Your task to perform on an android device: choose inbox layout in the gmail app Image 0: 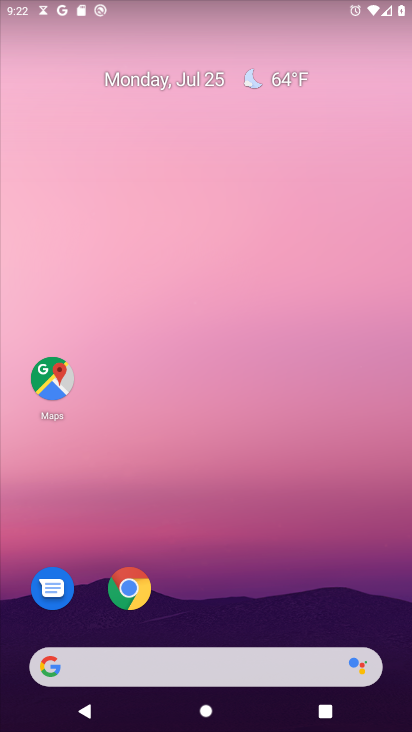
Step 0: drag from (181, 665) to (234, 189)
Your task to perform on an android device: choose inbox layout in the gmail app Image 1: 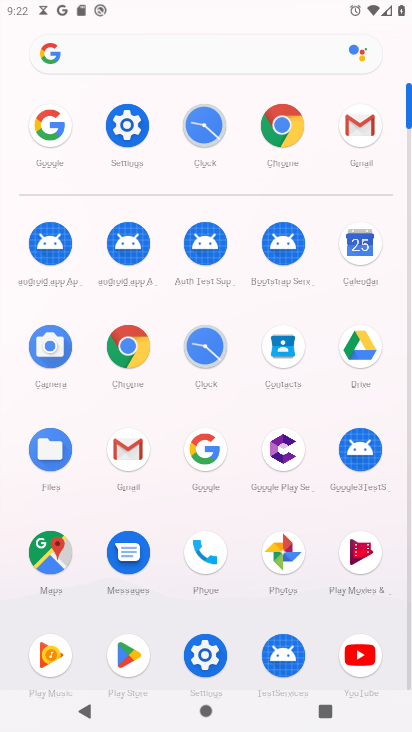
Step 1: click (125, 451)
Your task to perform on an android device: choose inbox layout in the gmail app Image 2: 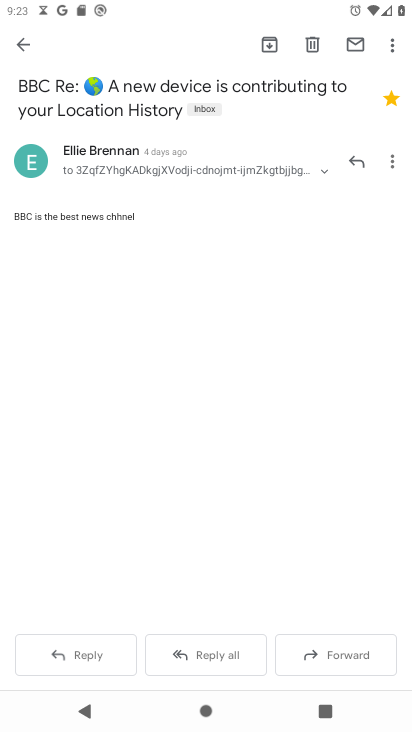
Step 2: click (28, 36)
Your task to perform on an android device: choose inbox layout in the gmail app Image 3: 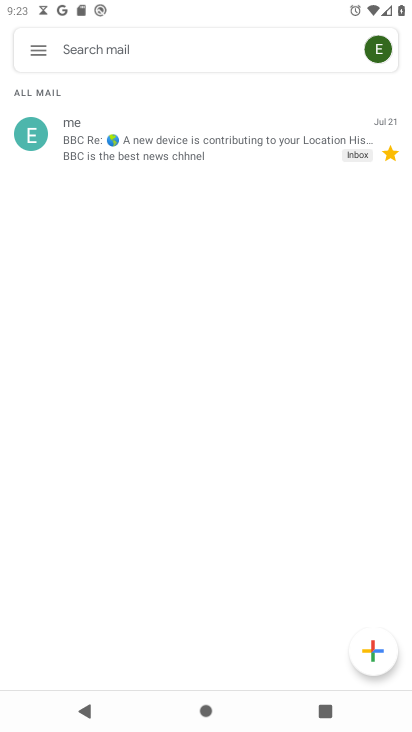
Step 3: click (40, 59)
Your task to perform on an android device: choose inbox layout in the gmail app Image 4: 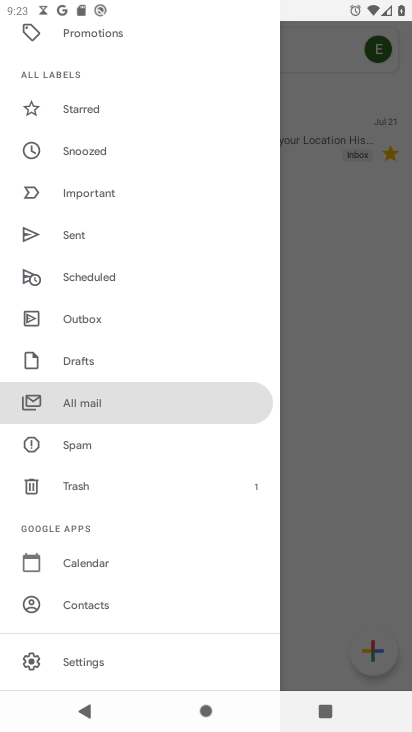
Step 4: click (77, 656)
Your task to perform on an android device: choose inbox layout in the gmail app Image 5: 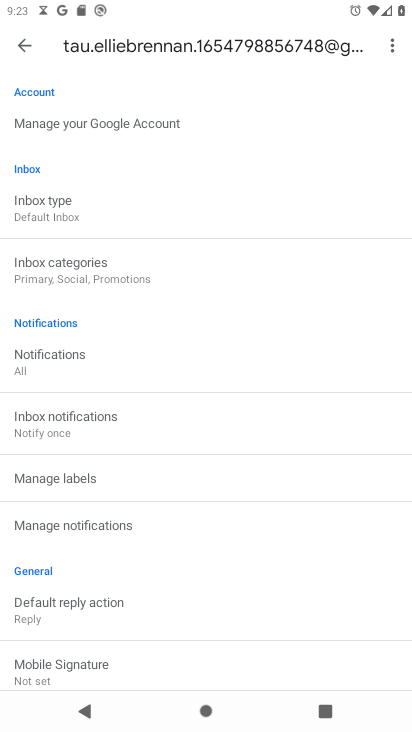
Step 5: click (106, 613)
Your task to perform on an android device: choose inbox layout in the gmail app Image 6: 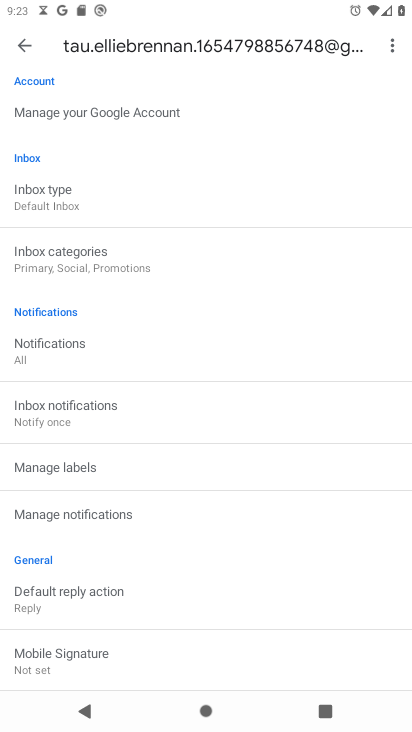
Step 6: click (34, 193)
Your task to perform on an android device: choose inbox layout in the gmail app Image 7: 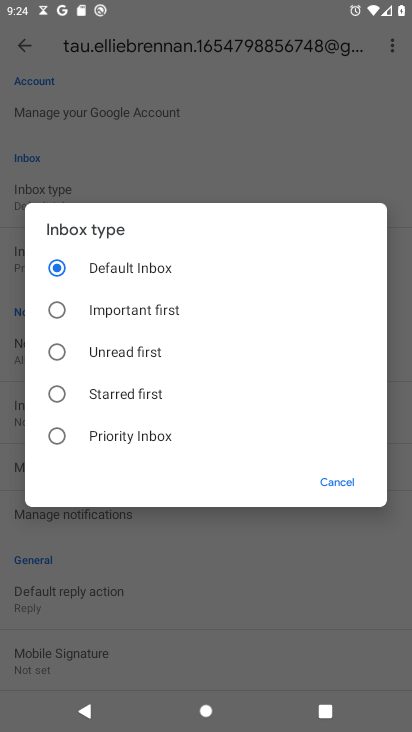
Step 7: click (96, 424)
Your task to perform on an android device: choose inbox layout in the gmail app Image 8: 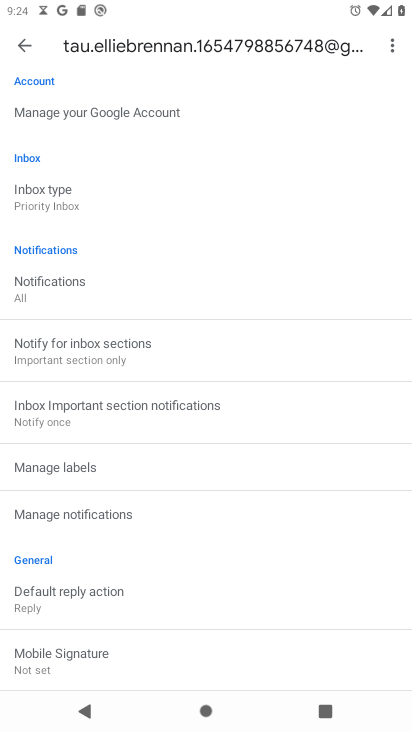
Step 8: task complete